Your task to perform on an android device: Go to location settings Image 0: 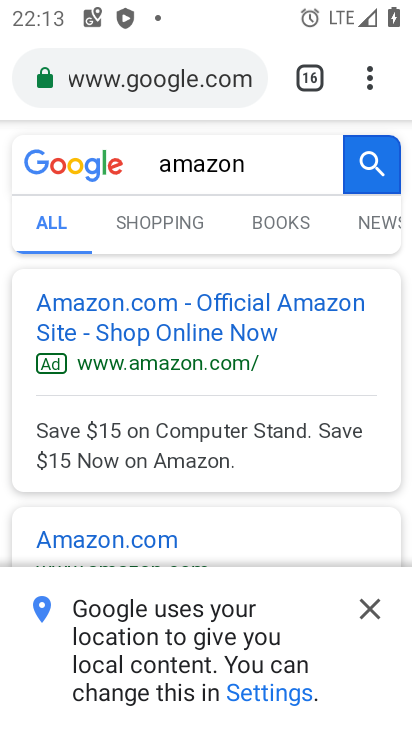
Step 0: press home button
Your task to perform on an android device: Go to location settings Image 1: 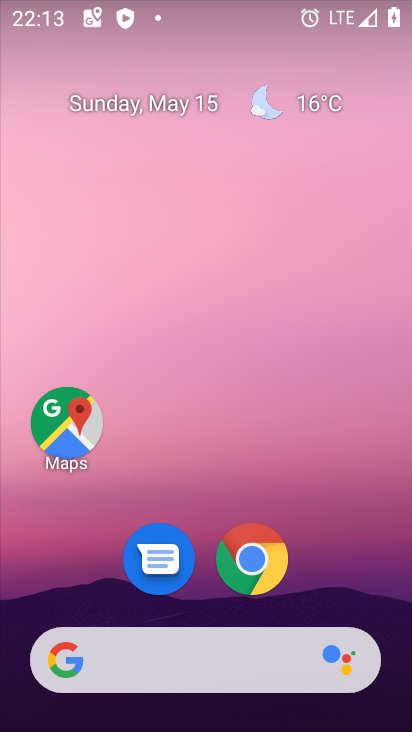
Step 1: drag from (317, 520) to (221, 51)
Your task to perform on an android device: Go to location settings Image 2: 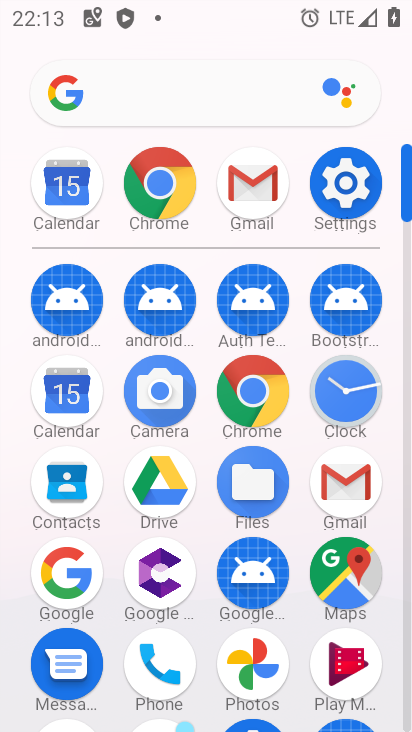
Step 2: click (346, 176)
Your task to perform on an android device: Go to location settings Image 3: 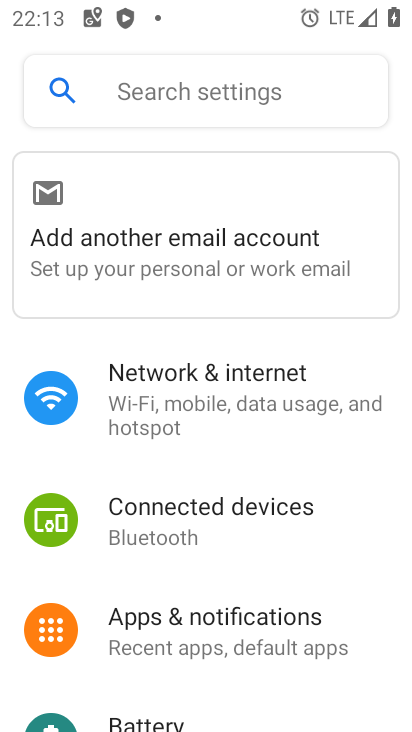
Step 3: drag from (210, 583) to (132, 211)
Your task to perform on an android device: Go to location settings Image 4: 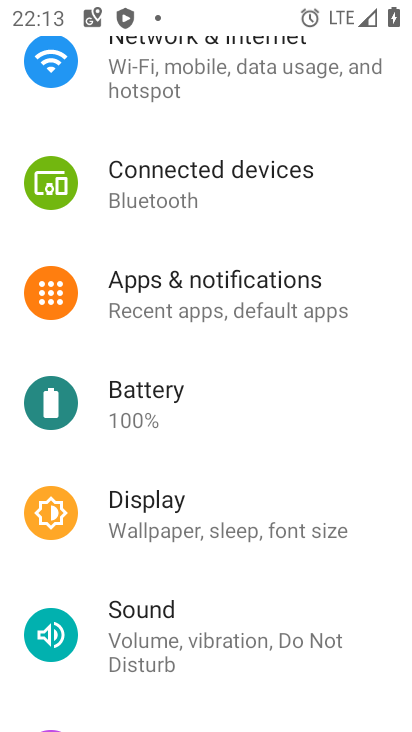
Step 4: drag from (204, 566) to (183, 244)
Your task to perform on an android device: Go to location settings Image 5: 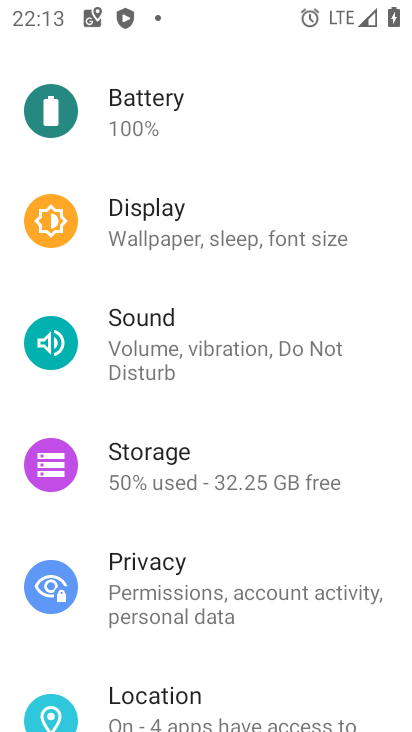
Step 5: drag from (208, 522) to (111, 121)
Your task to perform on an android device: Go to location settings Image 6: 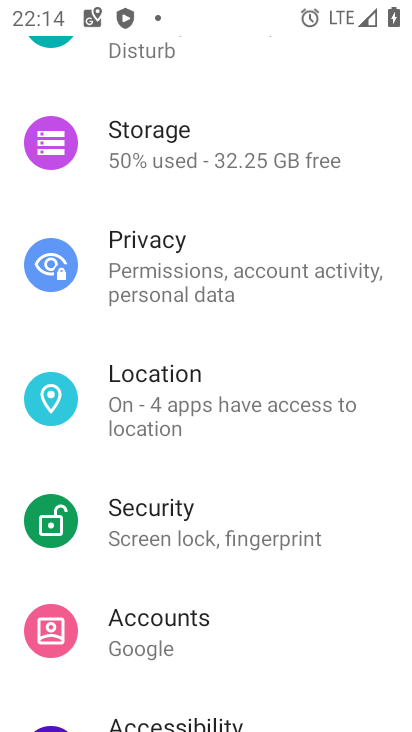
Step 6: click (175, 386)
Your task to perform on an android device: Go to location settings Image 7: 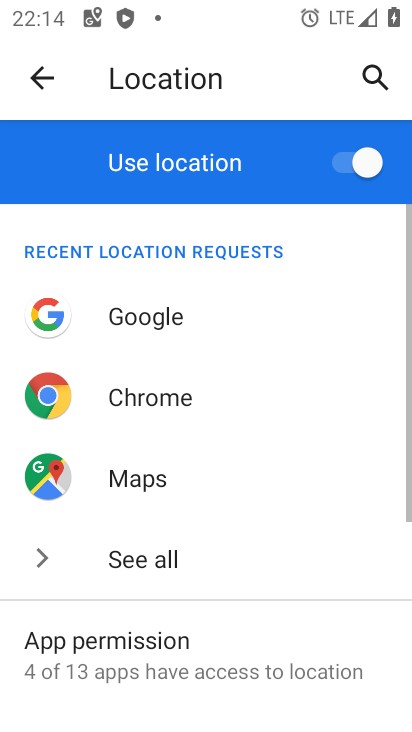
Step 7: task complete